Your task to perform on an android device: turn vacation reply on in the gmail app Image 0: 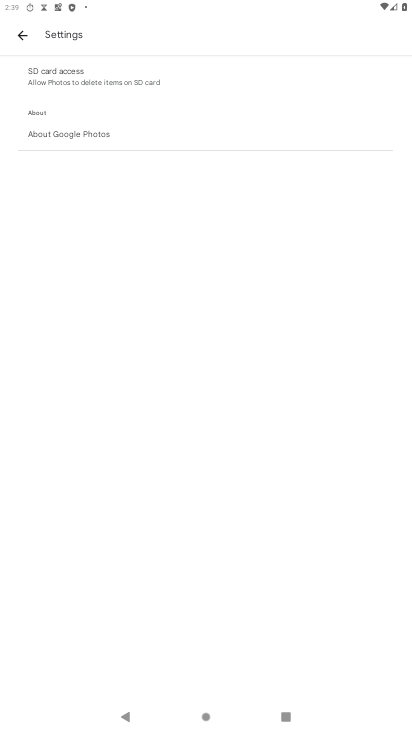
Step 0: press home button
Your task to perform on an android device: turn vacation reply on in the gmail app Image 1: 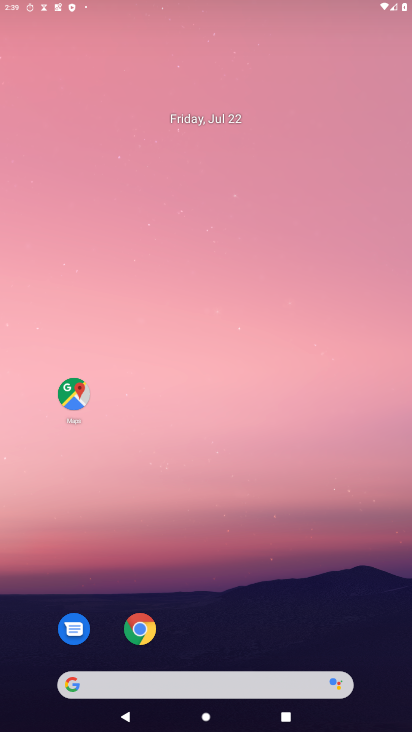
Step 1: drag from (279, 584) to (385, 129)
Your task to perform on an android device: turn vacation reply on in the gmail app Image 2: 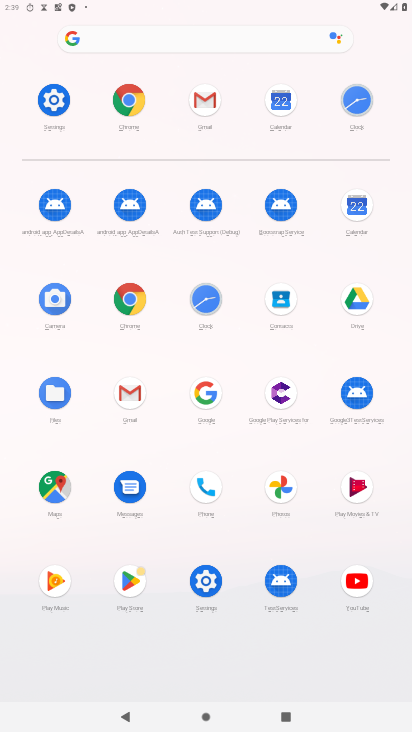
Step 2: click (129, 392)
Your task to perform on an android device: turn vacation reply on in the gmail app Image 3: 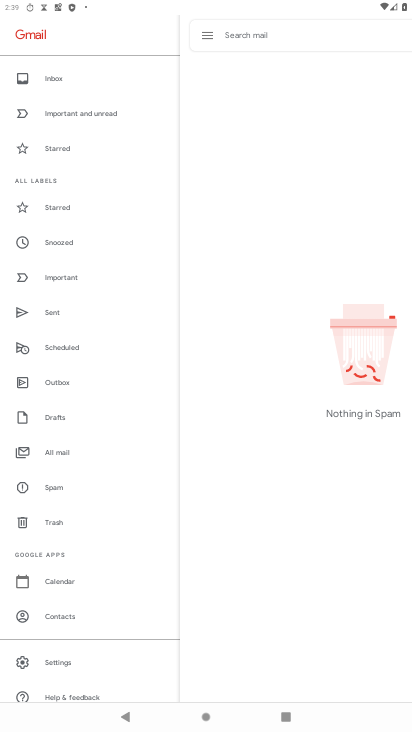
Step 3: click (59, 662)
Your task to perform on an android device: turn vacation reply on in the gmail app Image 4: 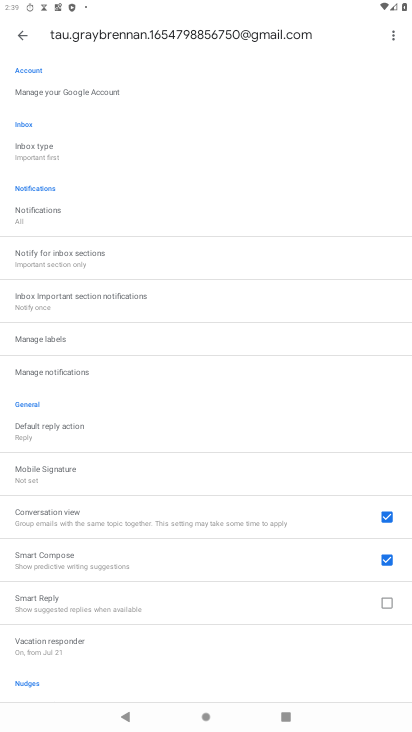
Step 4: click (101, 641)
Your task to perform on an android device: turn vacation reply on in the gmail app Image 5: 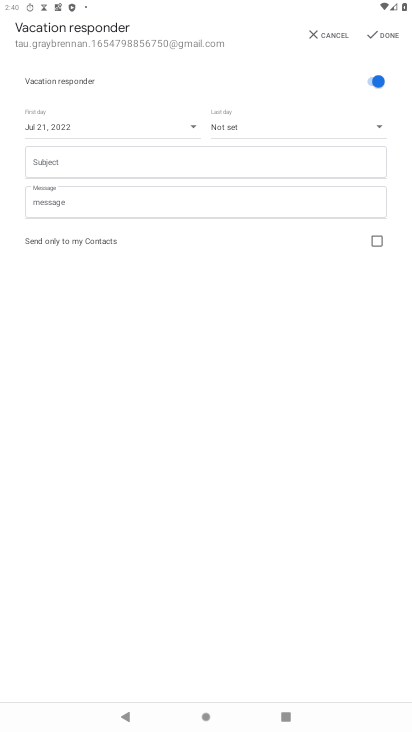
Step 5: click (385, 35)
Your task to perform on an android device: turn vacation reply on in the gmail app Image 6: 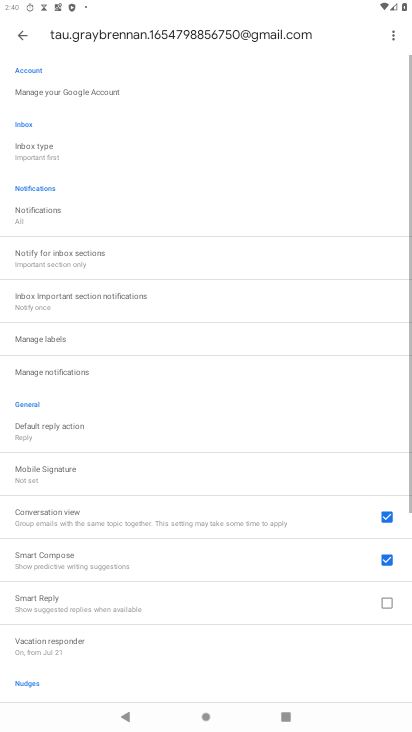
Step 6: task complete